Your task to perform on an android device: toggle sleep mode Image 0: 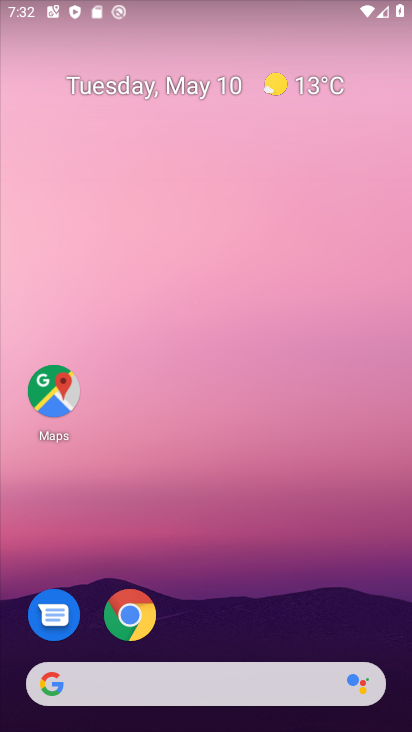
Step 0: drag from (212, 571) to (215, 89)
Your task to perform on an android device: toggle sleep mode Image 1: 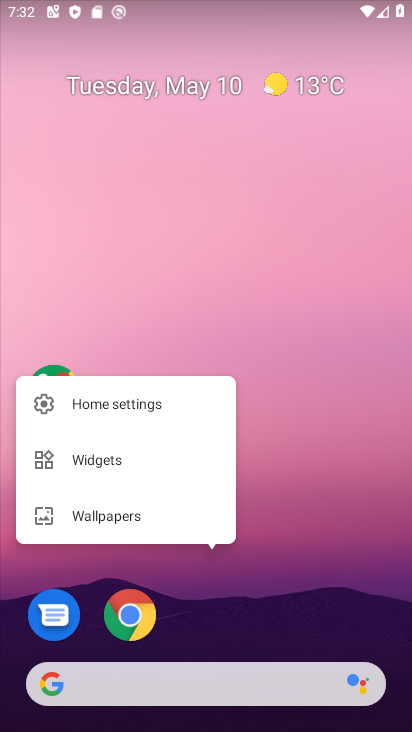
Step 1: click (284, 536)
Your task to perform on an android device: toggle sleep mode Image 2: 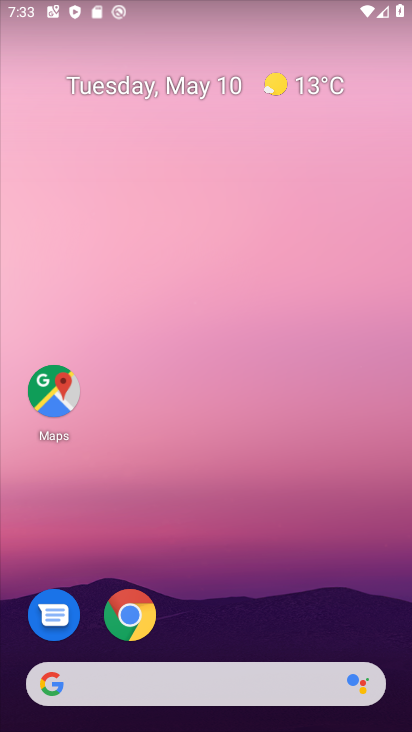
Step 2: drag from (251, 565) to (100, 14)
Your task to perform on an android device: toggle sleep mode Image 3: 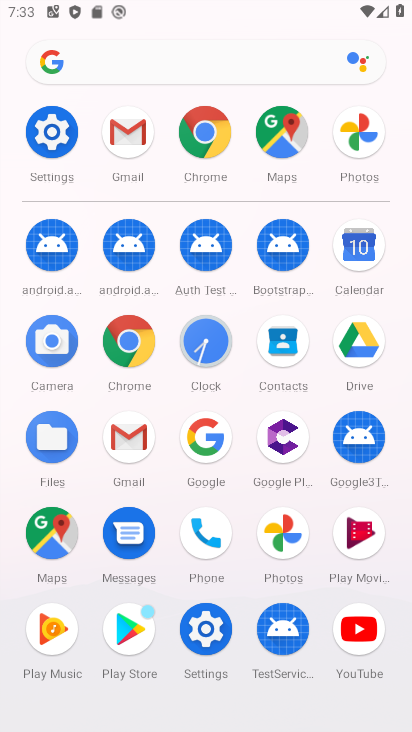
Step 3: click (56, 140)
Your task to perform on an android device: toggle sleep mode Image 4: 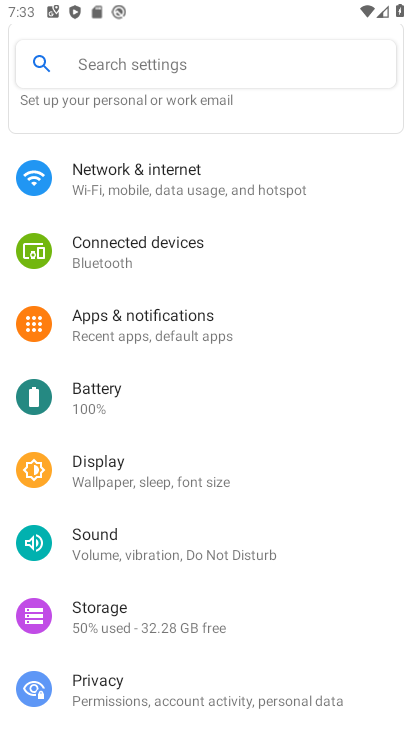
Step 4: click (98, 460)
Your task to perform on an android device: toggle sleep mode Image 5: 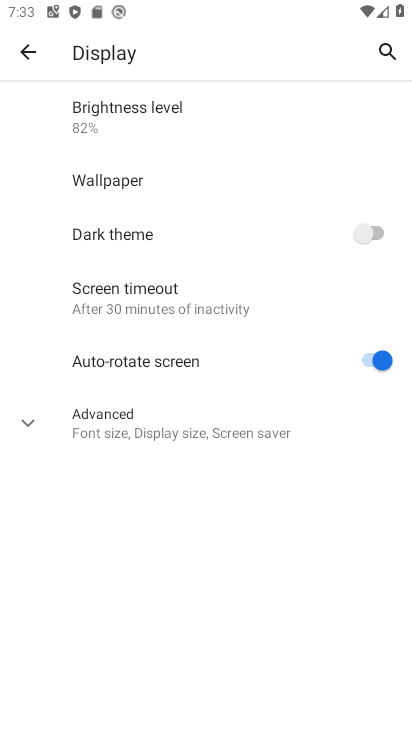
Step 5: click (181, 496)
Your task to perform on an android device: toggle sleep mode Image 6: 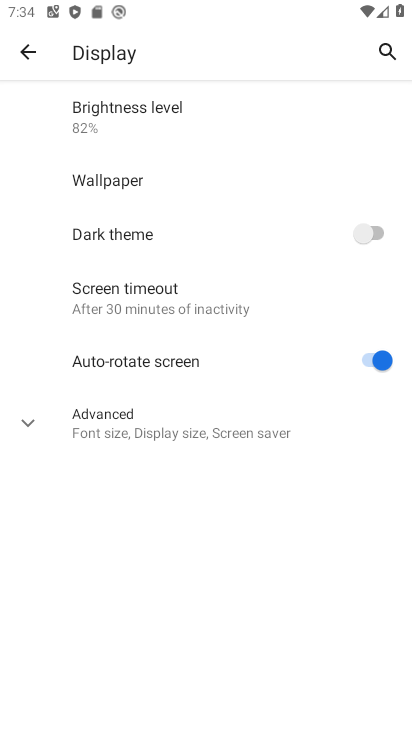
Step 6: click (27, 56)
Your task to perform on an android device: toggle sleep mode Image 7: 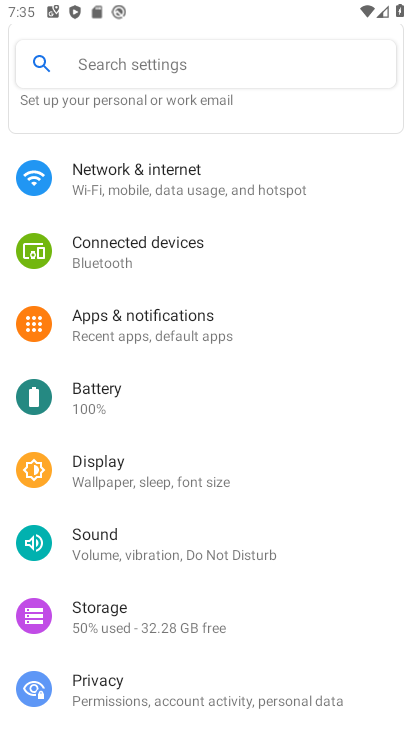
Step 7: task complete